Your task to perform on an android device: check the backup settings in the google photos Image 0: 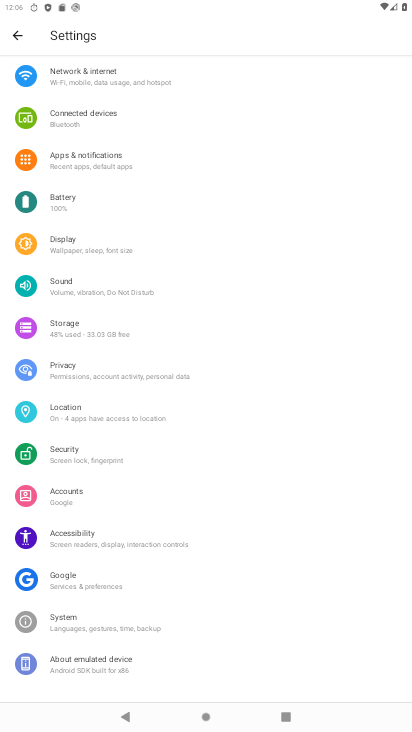
Step 0: press home button
Your task to perform on an android device: check the backup settings in the google photos Image 1: 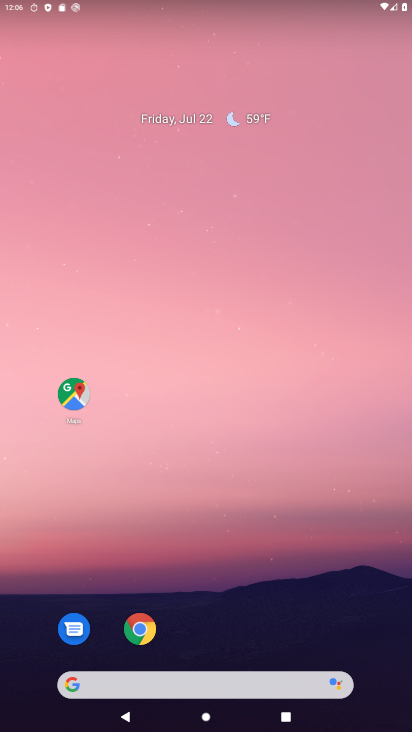
Step 1: drag from (237, 685) to (389, 13)
Your task to perform on an android device: check the backup settings in the google photos Image 2: 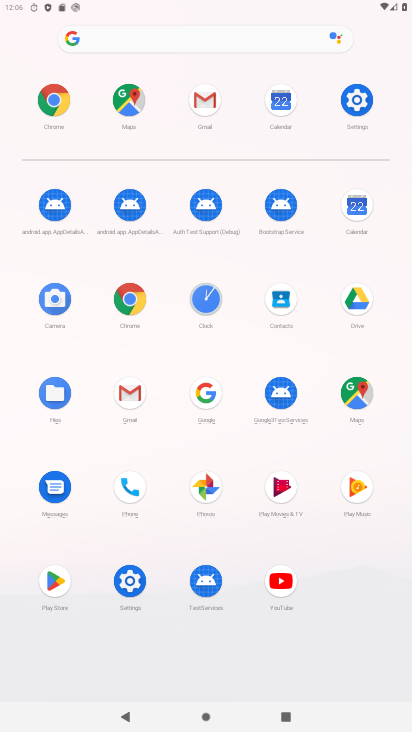
Step 2: click (218, 477)
Your task to perform on an android device: check the backup settings in the google photos Image 3: 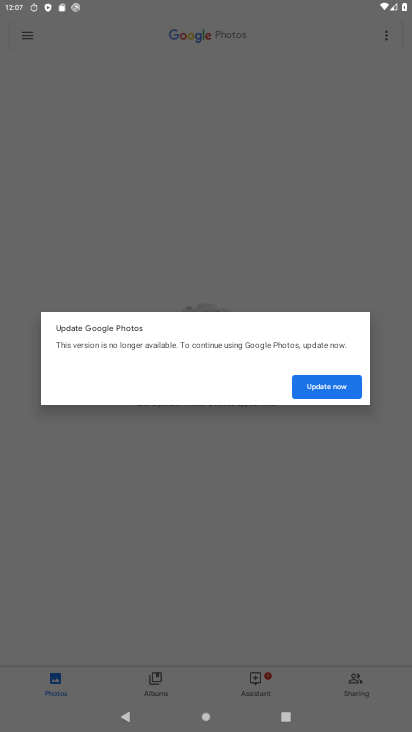
Step 3: click (336, 386)
Your task to perform on an android device: check the backup settings in the google photos Image 4: 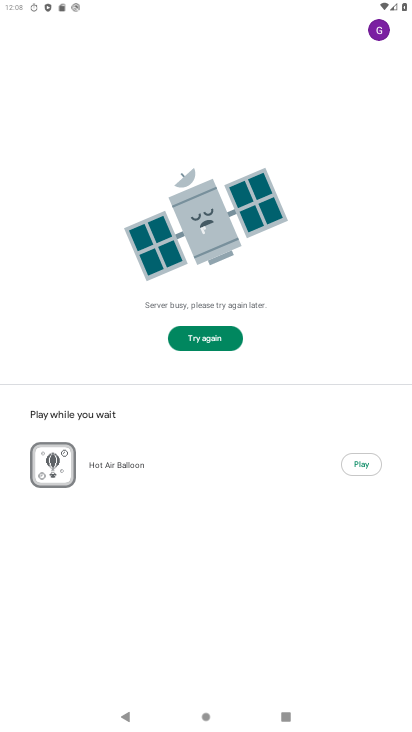
Step 4: task complete